Your task to perform on an android device: uninstall "Move to iOS" Image 0: 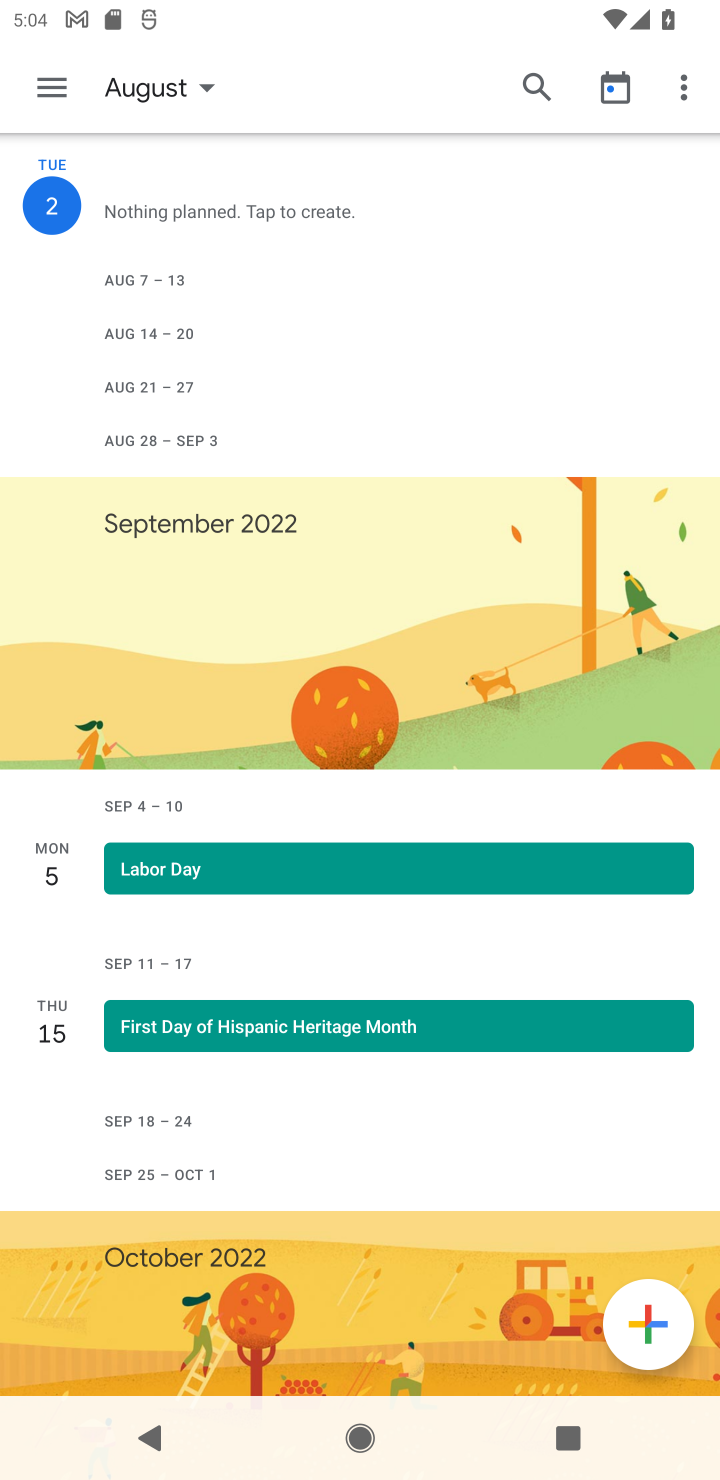
Step 0: press home button
Your task to perform on an android device: uninstall "Move to iOS" Image 1: 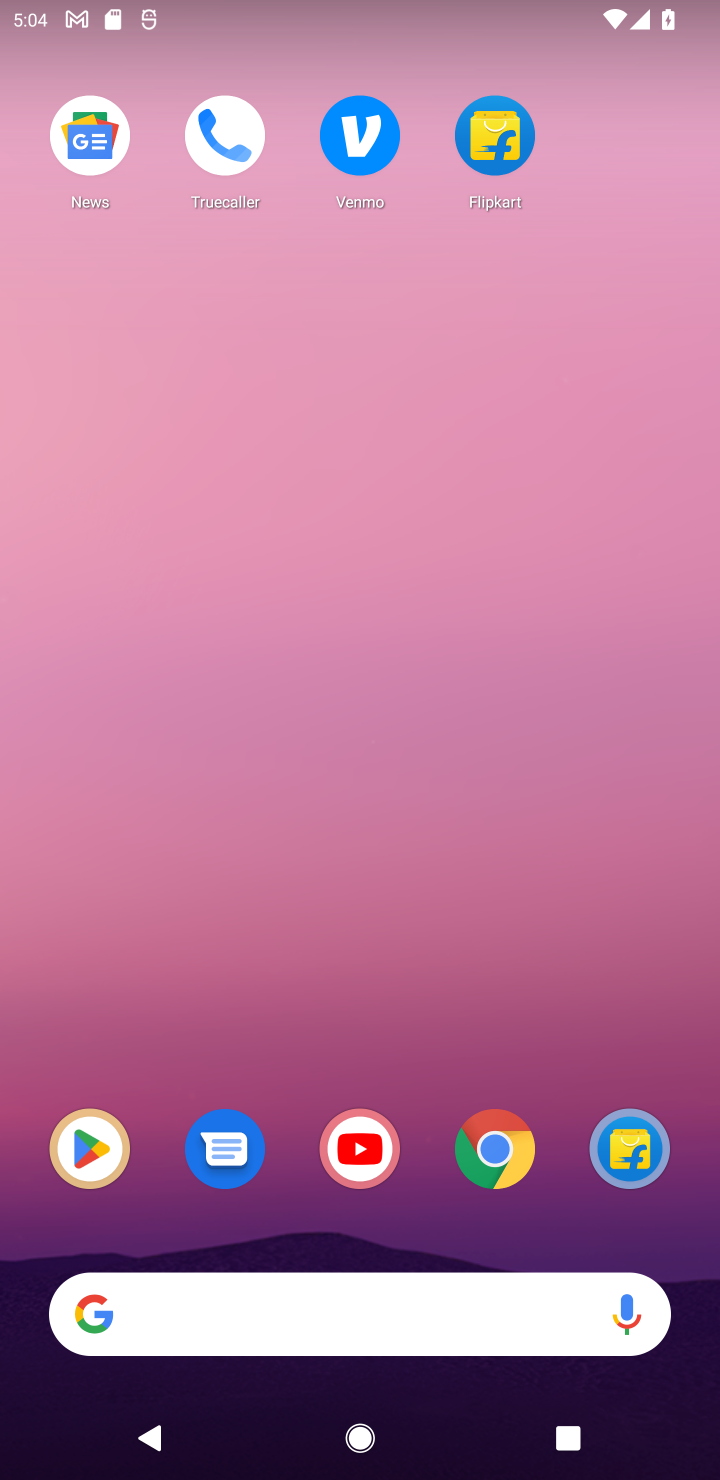
Step 1: click (82, 1160)
Your task to perform on an android device: uninstall "Move to iOS" Image 2: 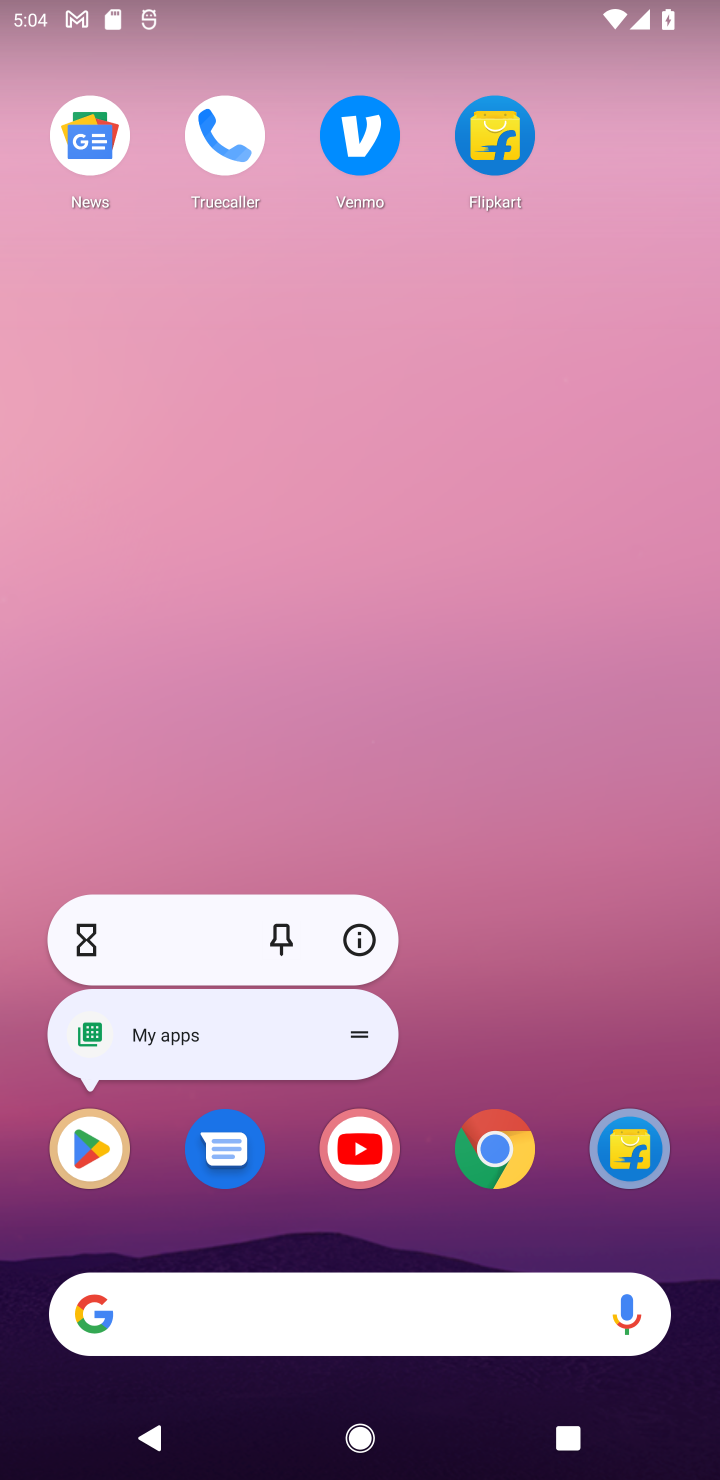
Step 2: click (88, 1161)
Your task to perform on an android device: uninstall "Move to iOS" Image 3: 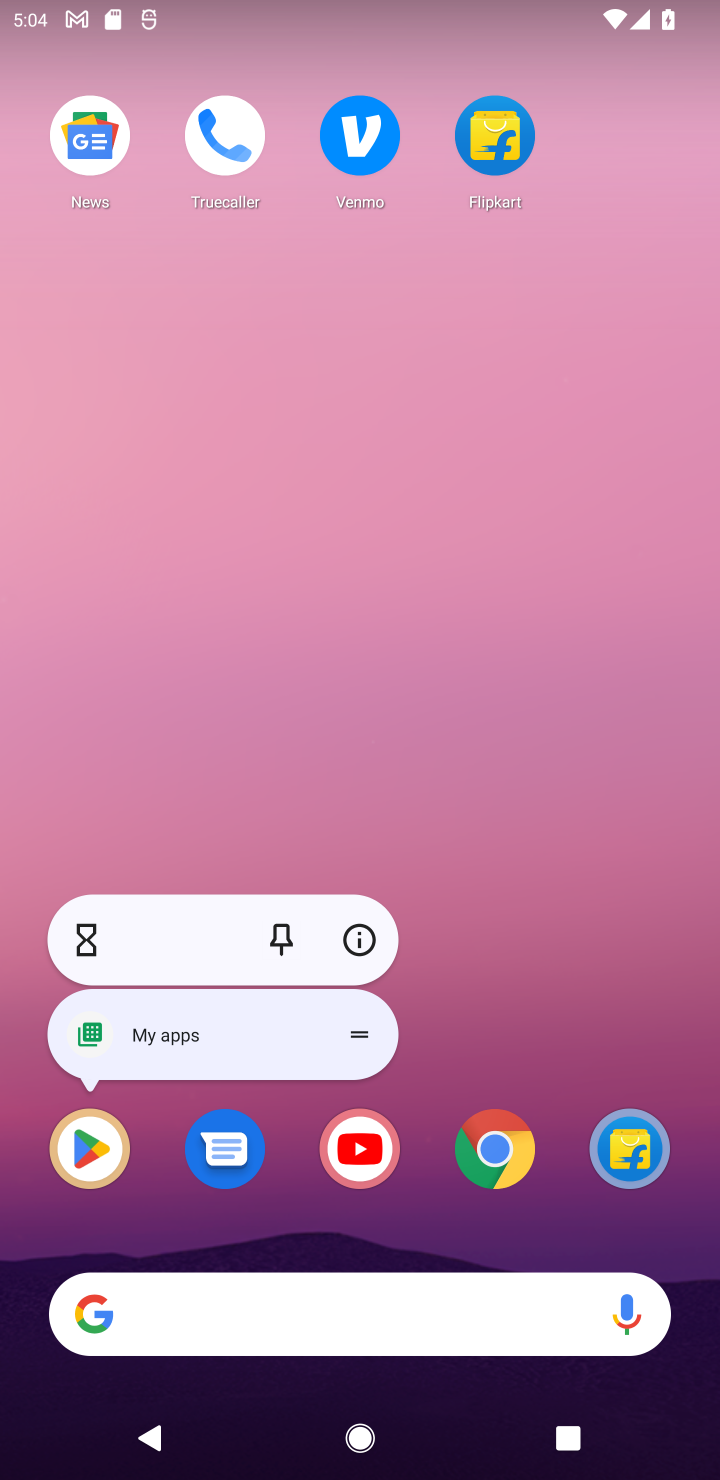
Step 3: click (72, 1128)
Your task to perform on an android device: uninstall "Move to iOS" Image 4: 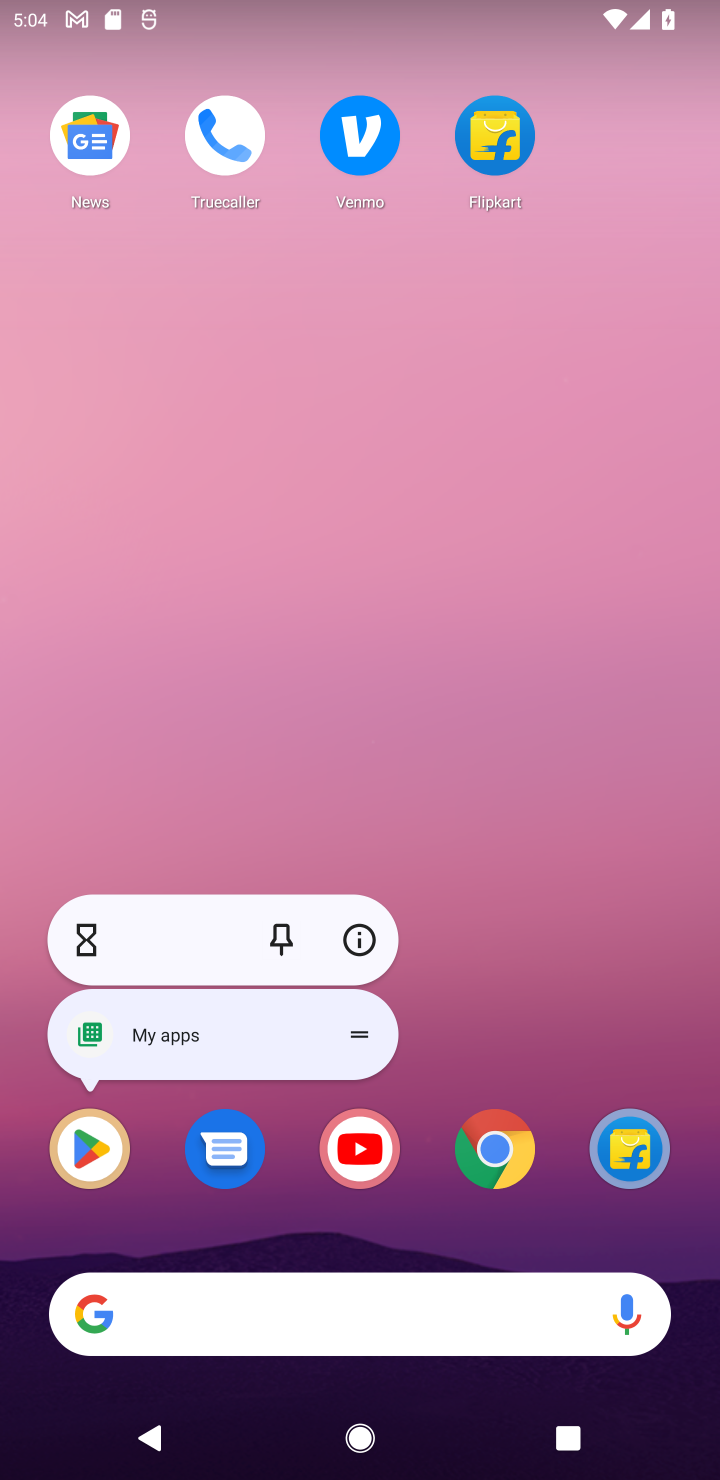
Step 4: task complete